Your task to perform on an android device: change the clock display to digital Image 0: 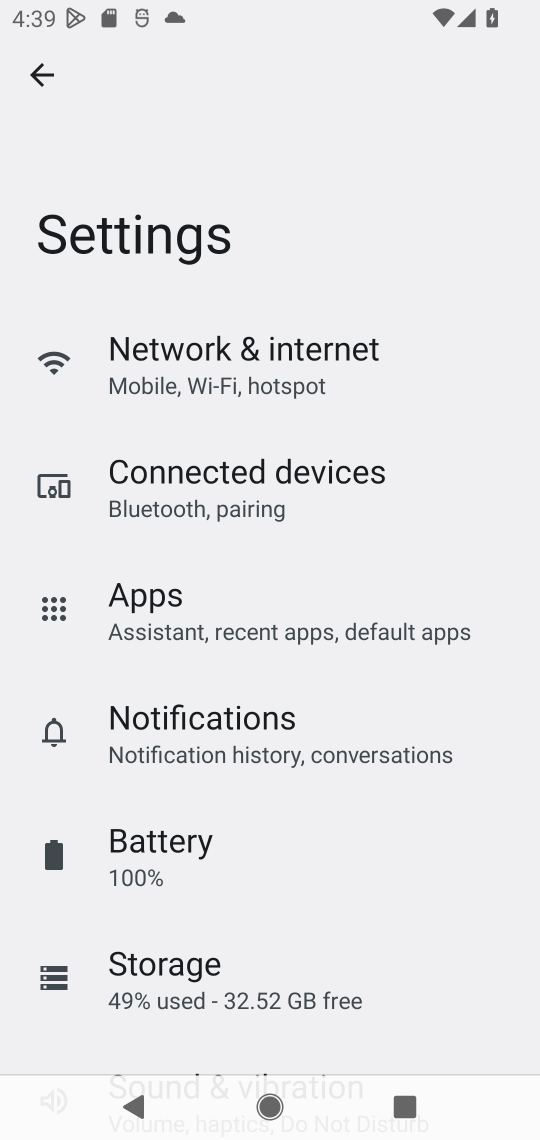
Step 0: type ""
Your task to perform on an android device: change the clock display to digital Image 1: 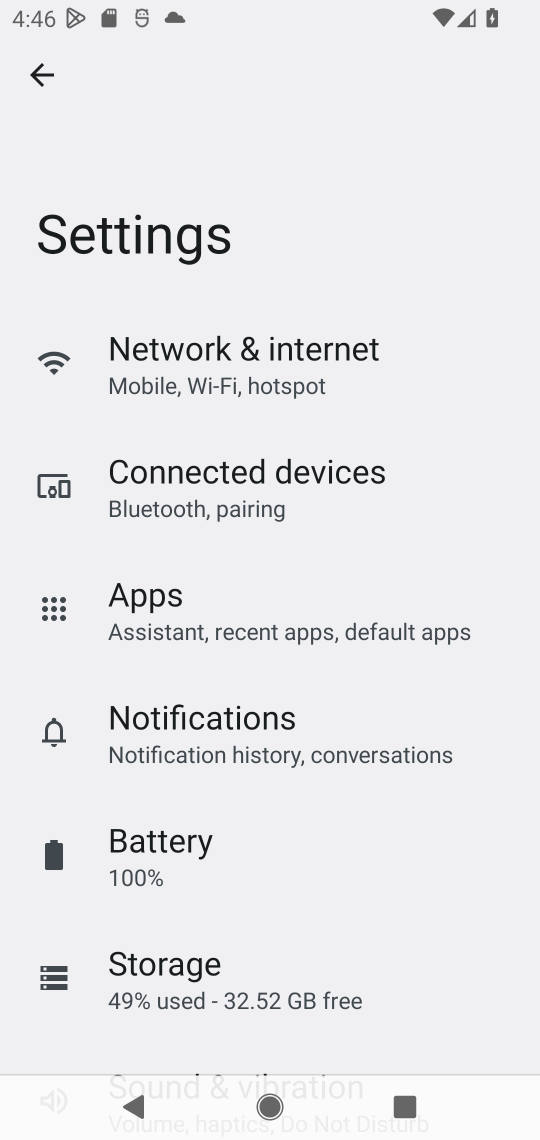
Step 1: task complete